Your task to perform on an android device: Open privacy settings Image 0: 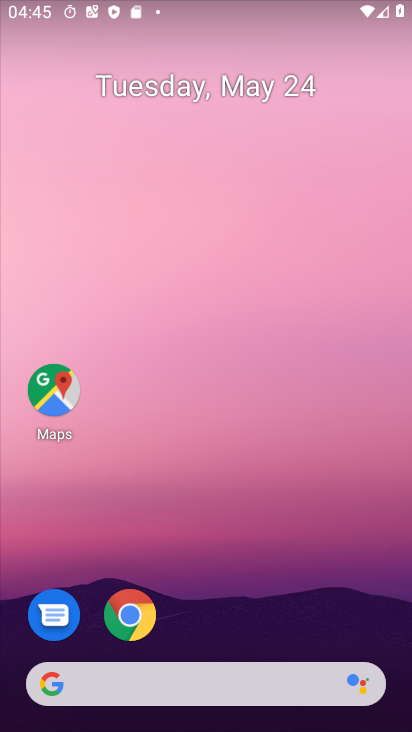
Step 0: drag from (199, 614) to (304, 52)
Your task to perform on an android device: Open privacy settings Image 1: 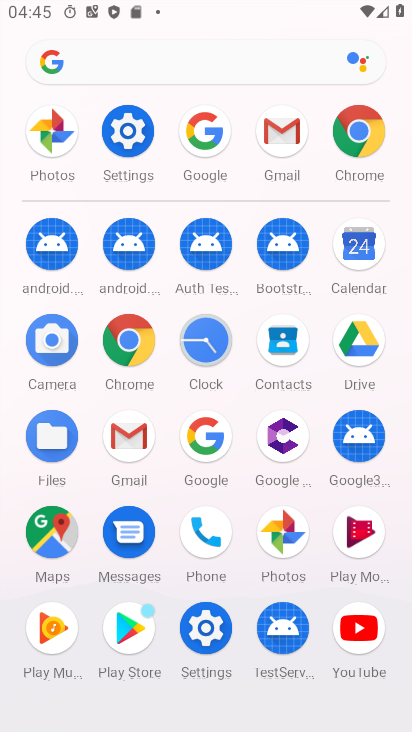
Step 1: click (125, 130)
Your task to perform on an android device: Open privacy settings Image 2: 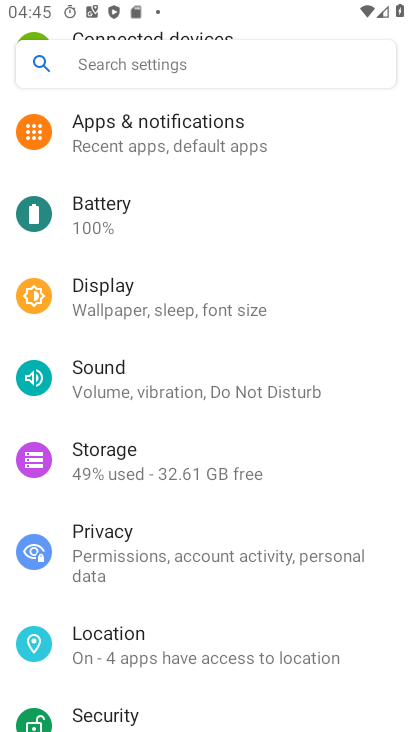
Step 2: click (114, 534)
Your task to perform on an android device: Open privacy settings Image 3: 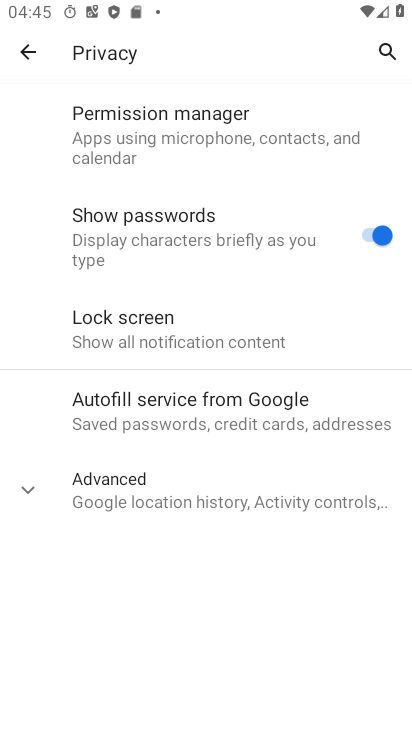
Step 3: task complete